Your task to perform on an android device: manage bookmarks in the chrome app Image 0: 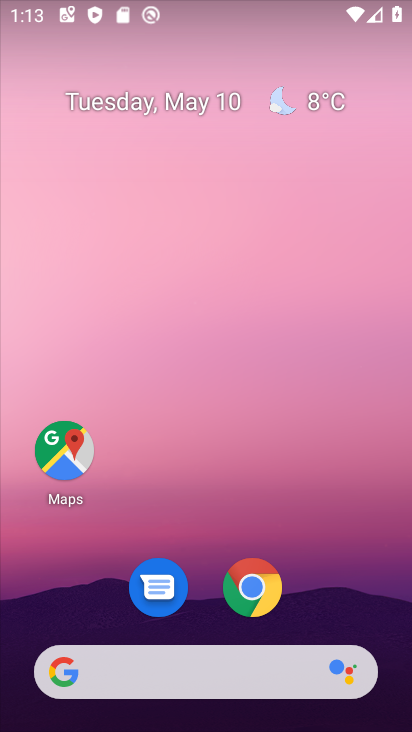
Step 0: click (266, 576)
Your task to perform on an android device: manage bookmarks in the chrome app Image 1: 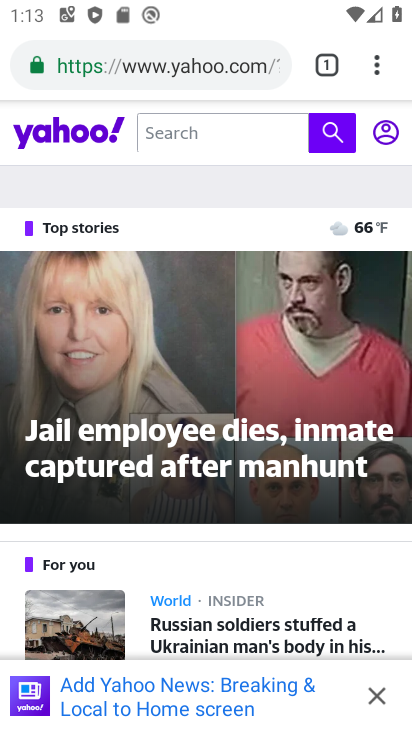
Step 1: click (382, 66)
Your task to perform on an android device: manage bookmarks in the chrome app Image 2: 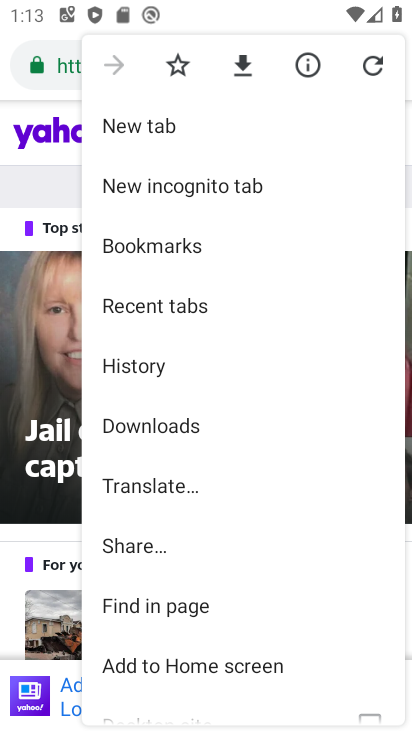
Step 2: click (162, 248)
Your task to perform on an android device: manage bookmarks in the chrome app Image 3: 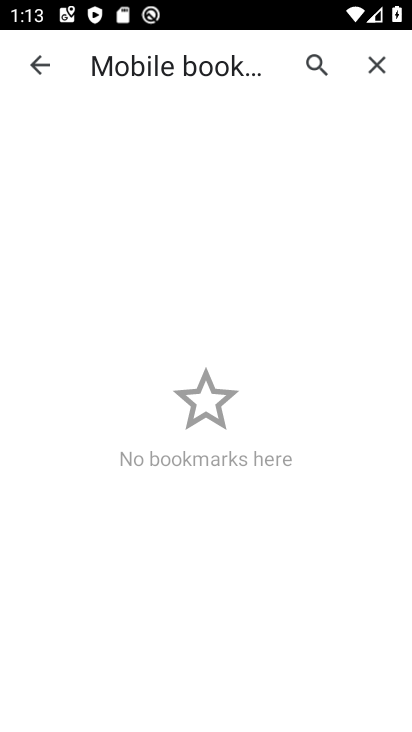
Step 3: task complete